Your task to perform on an android device: empty trash in the gmail app Image 0: 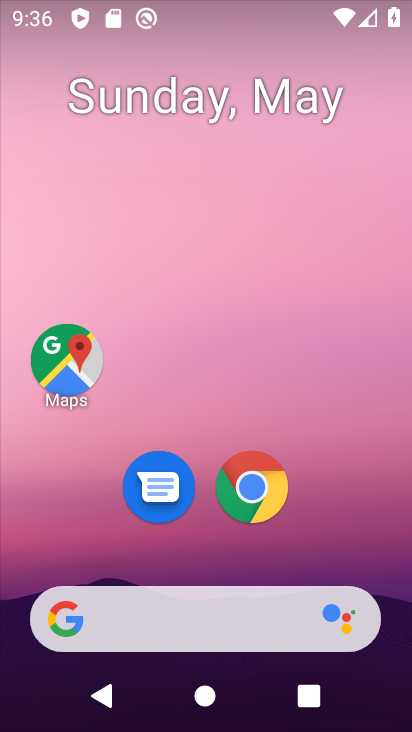
Step 0: drag from (386, 558) to (341, 156)
Your task to perform on an android device: empty trash in the gmail app Image 1: 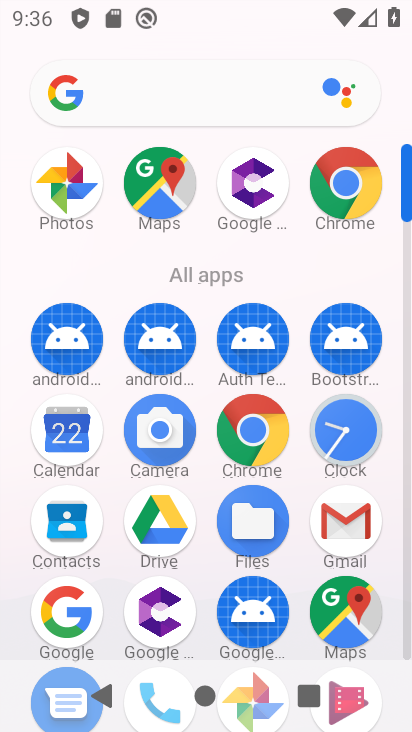
Step 1: click (356, 512)
Your task to perform on an android device: empty trash in the gmail app Image 2: 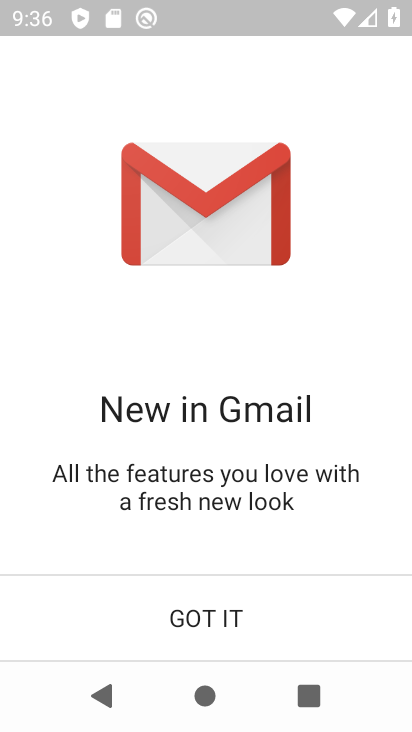
Step 2: click (245, 608)
Your task to perform on an android device: empty trash in the gmail app Image 3: 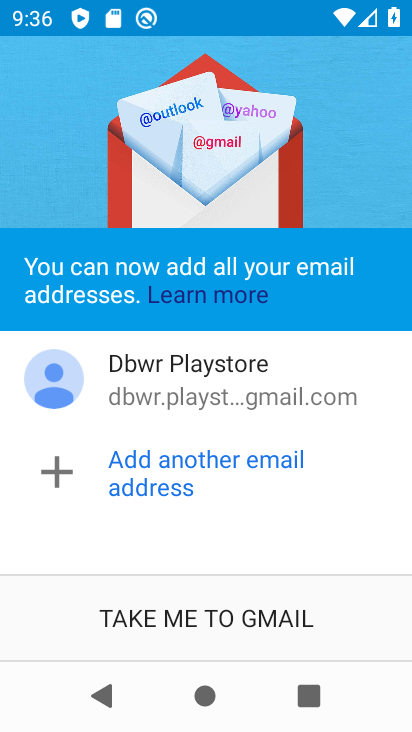
Step 3: click (245, 608)
Your task to perform on an android device: empty trash in the gmail app Image 4: 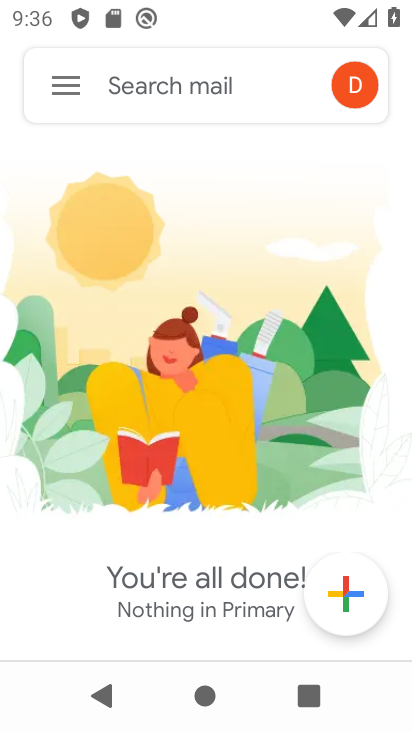
Step 4: click (60, 86)
Your task to perform on an android device: empty trash in the gmail app Image 5: 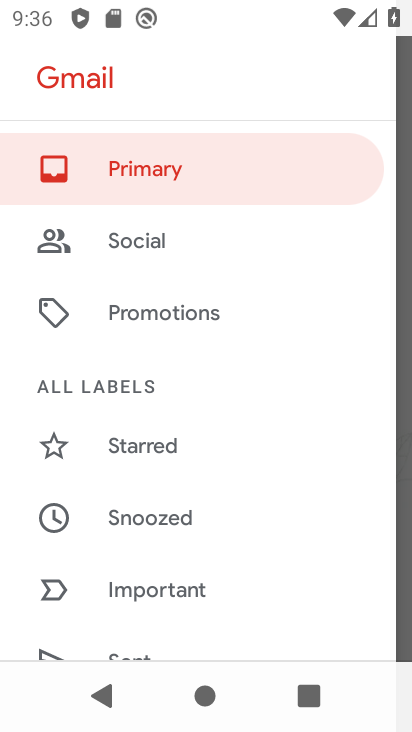
Step 5: drag from (283, 526) to (293, 400)
Your task to perform on an android device: empty trash in the gmail app Image 6: 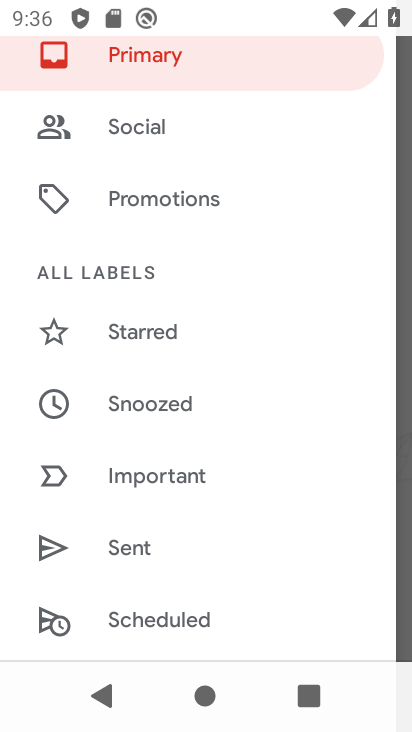
Step 6: drag from (267, 512) to (282, 423)
Your task to perform on an android device: empty trash in the gmail app Image 7: 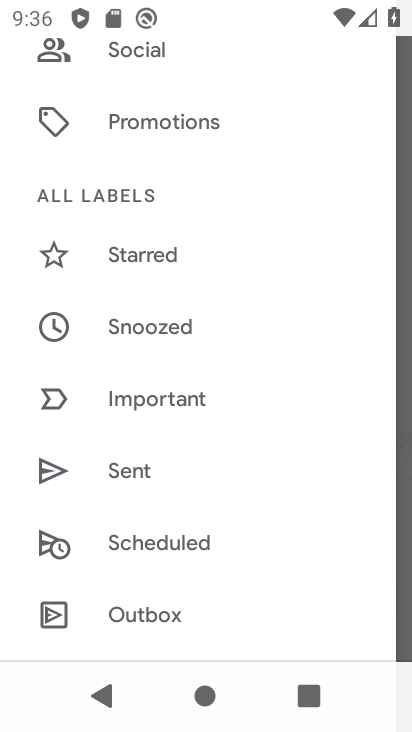
Step 7: drag from (304, 569) to (322, 474)
Your task to perform on an android device: empty trash in the gmail app Image 8: 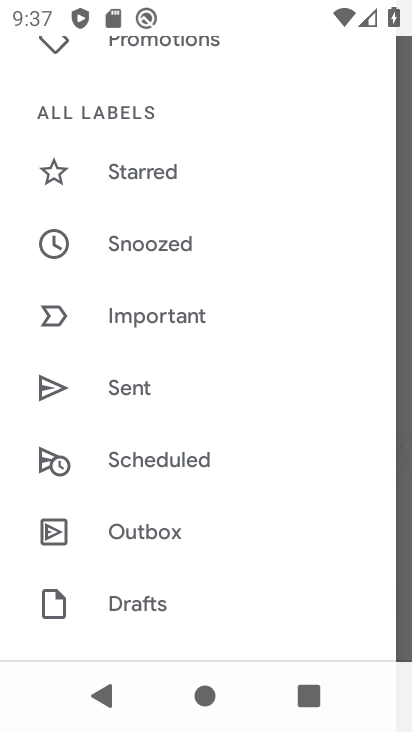
Step 8: drag from (330, 567) to (330, 460)
Your task to perform on an android device: empty trash in the gmail app Image 9: 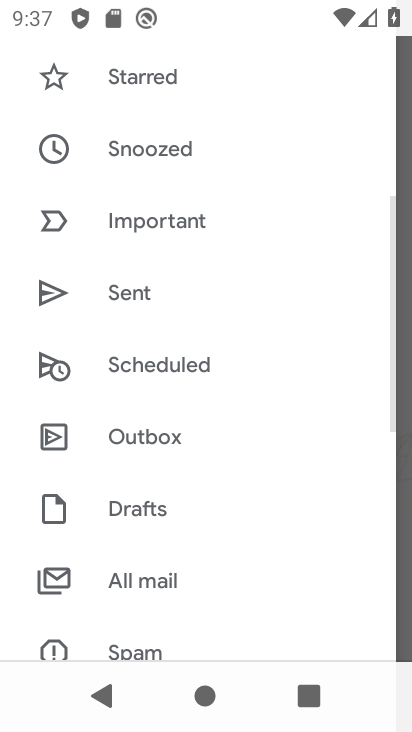
Step 9: drag from (334, 573) to (320, 464)
Your task to perform on an android device: empty trash in the gmail app Image 10: 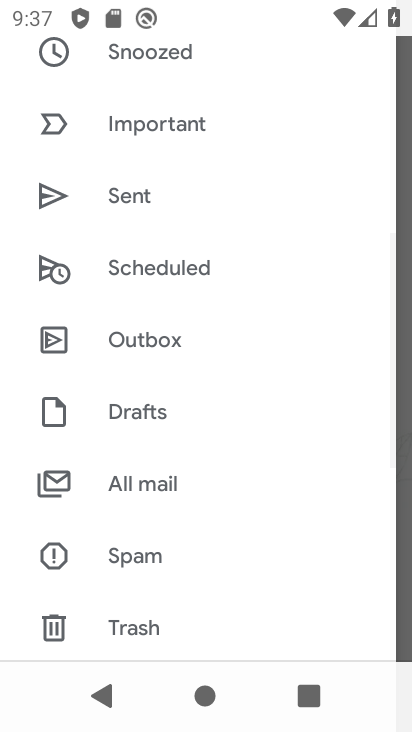
Step 10: drag from (320, 569) to (313, 456)
Your task to perform on an android device: empty trash in the gmail app Image 11: 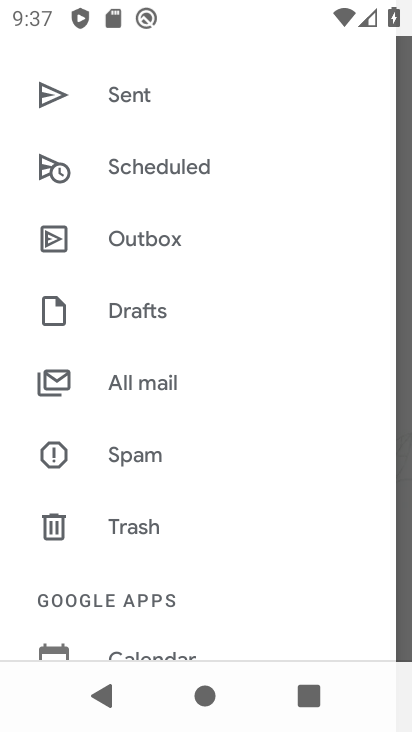
Step 11: click (189, 517)
Your task to perform on an android device: empty trash in the gmail app Image 12: 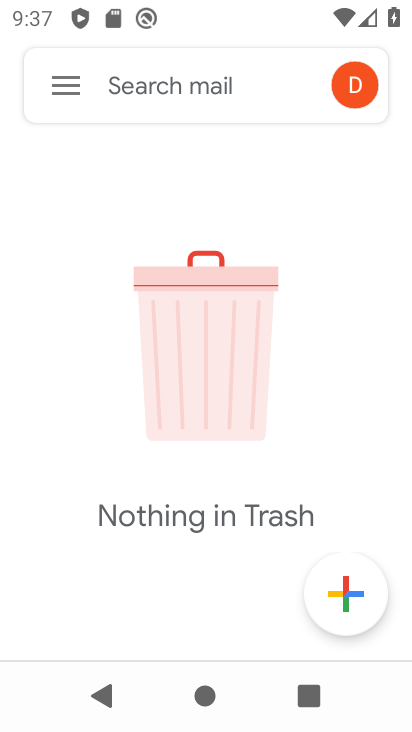
Step 12: task complete